Your task to perform on an android device: turn on airplane mode Image 0: 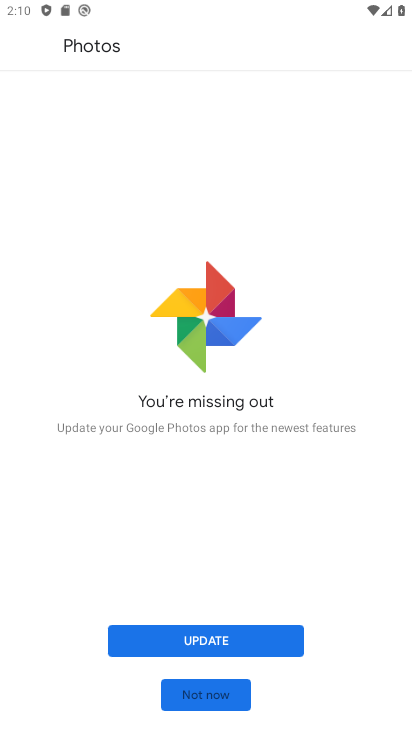
Step 0: press home button
Your task to perform on an android device: turn on airplane mode Image 1: 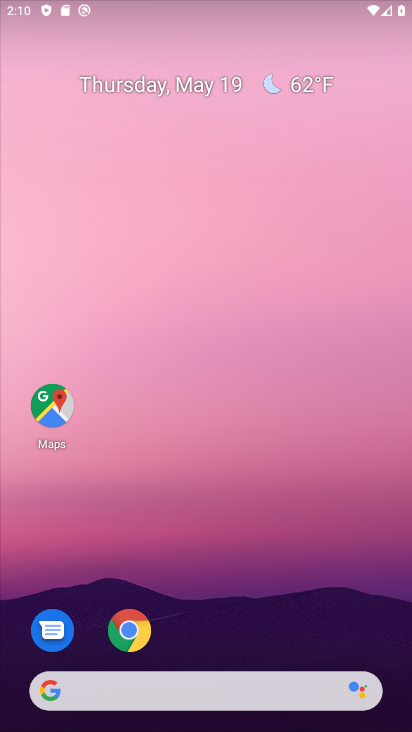
Step 1: drag from (376, 598) to (346, 193)
Your task to perform on an android device: turn on airplane mode Image 2: 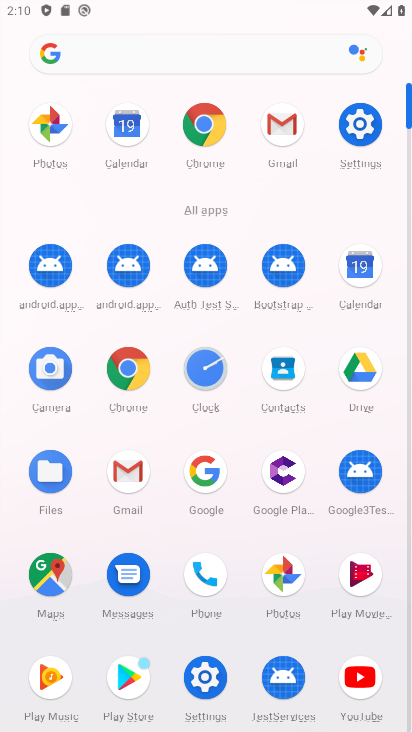
Step 2: click (369, 134)
Your task to perform on an android device: turn on airplane mode Image 3: 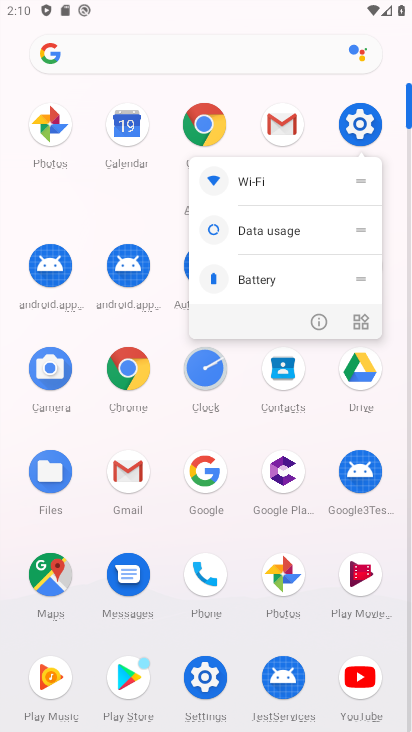
Step 3: click (369, 130)
Your task to perform on an android device: turn on airplane mode Image 4: 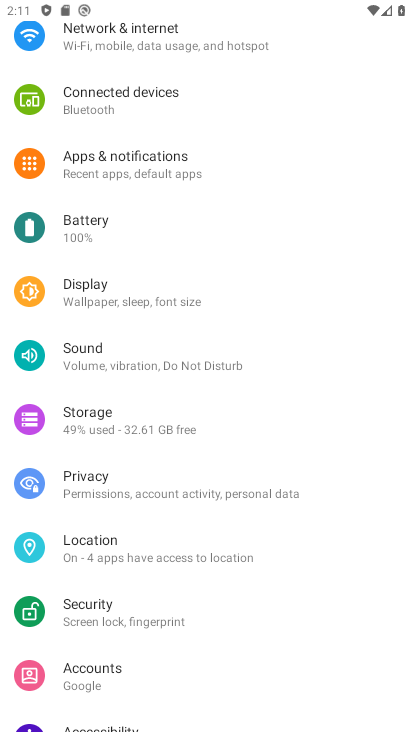
Step 4: drag from (348, 164) to (344, 552)
Your task to perform on an android device: turn on airplane mode Image 5: 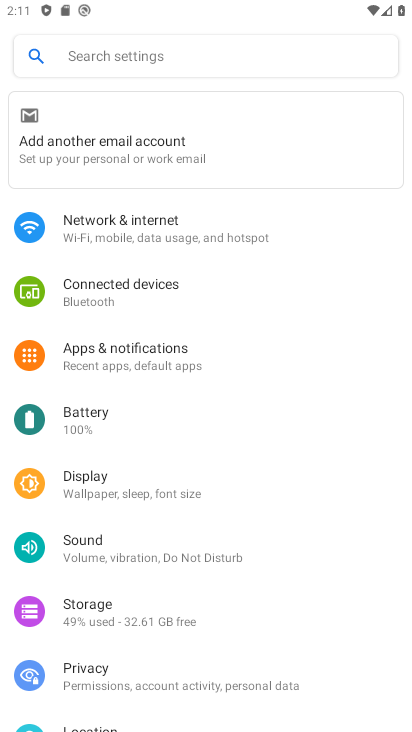
Step 5: click (205, 228)
Your task to perform on an android device: turn on airplane mode Image 6: 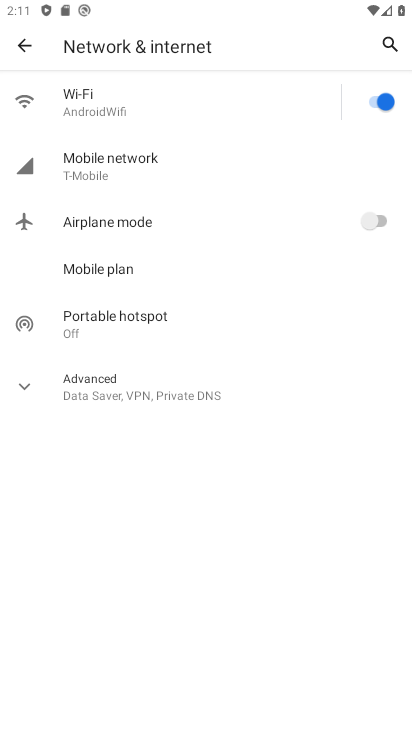
Step 6: click (390, 223)
Your task to perform on an android device: turn on airplane mode Image 7: 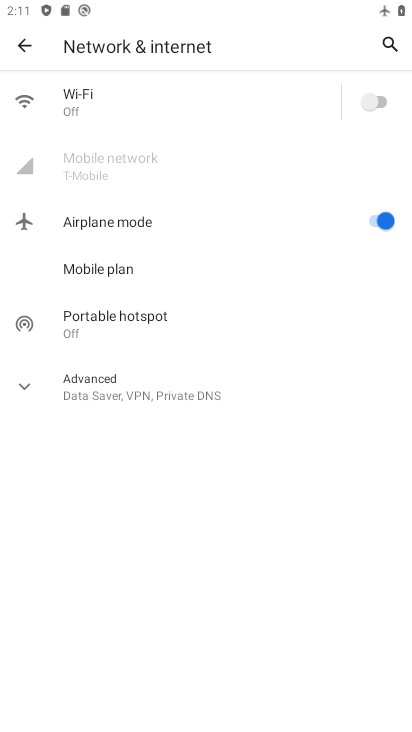
Step 7: task complete